Your task to perform on an android device: Show the shopping cart on target. Image 0: 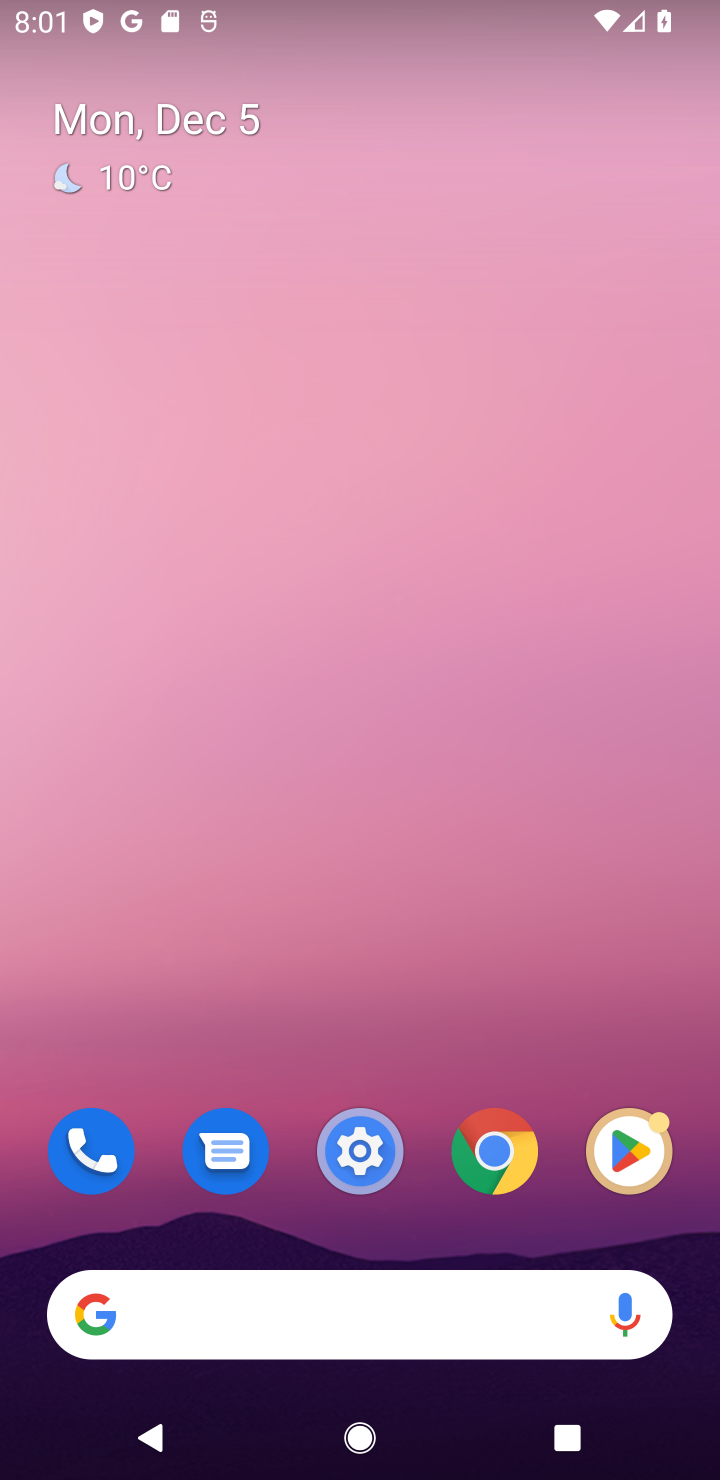
Step 0: click (343, 1292)
Your task to perform on an android device: Show the shopping cart on target. Image 1: 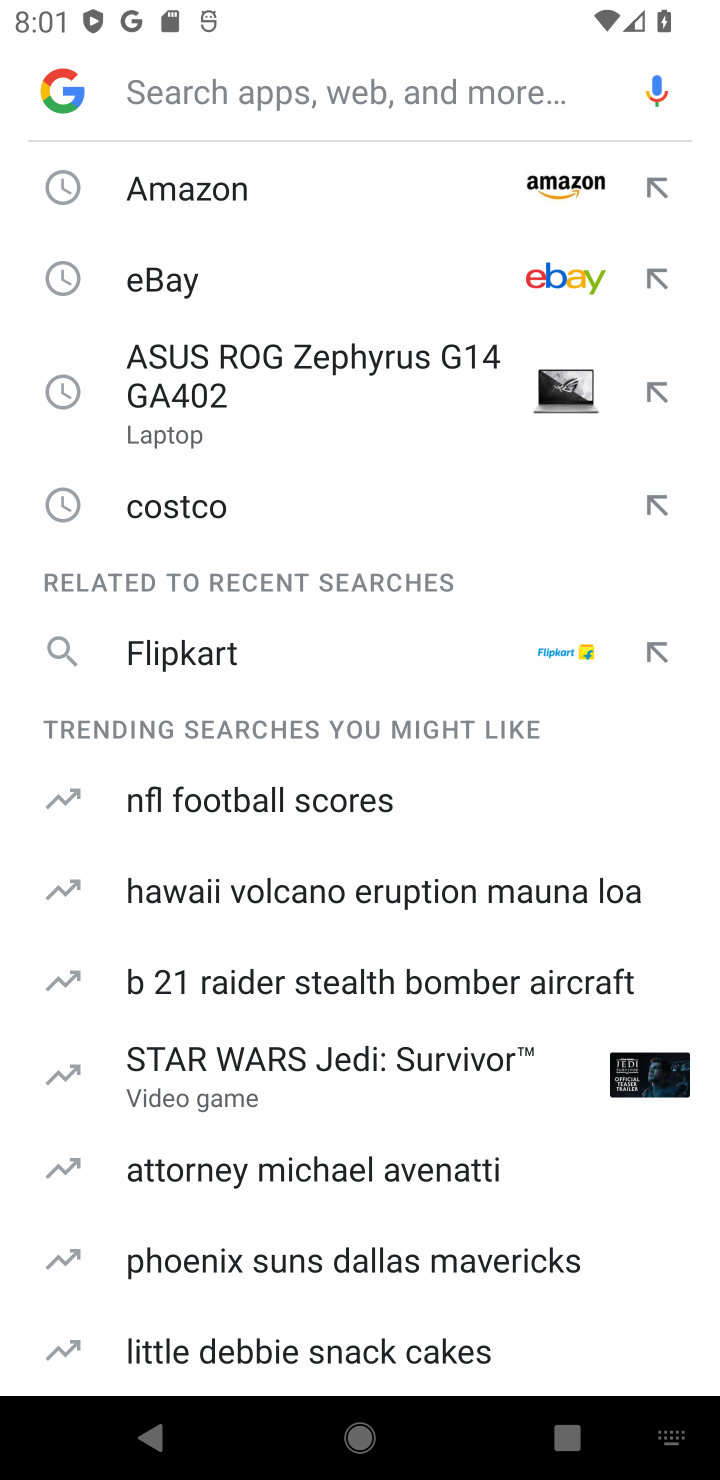
Step 1: type "target"
Your task to perform on an android device: Show the shopping cart on target. Image 2: 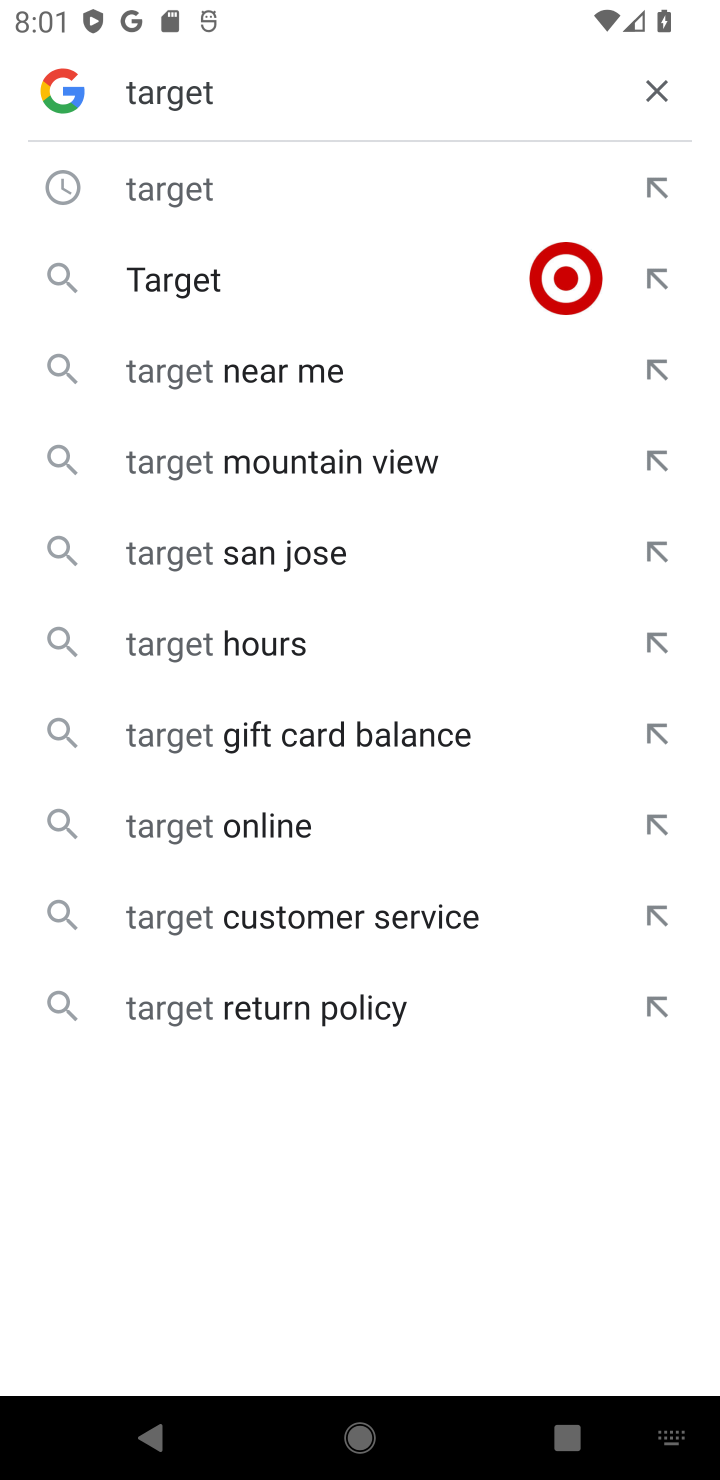
Step 2: click (230, 296)
Your task to perform on an android device: Show the shopping cart on target. Image 3: 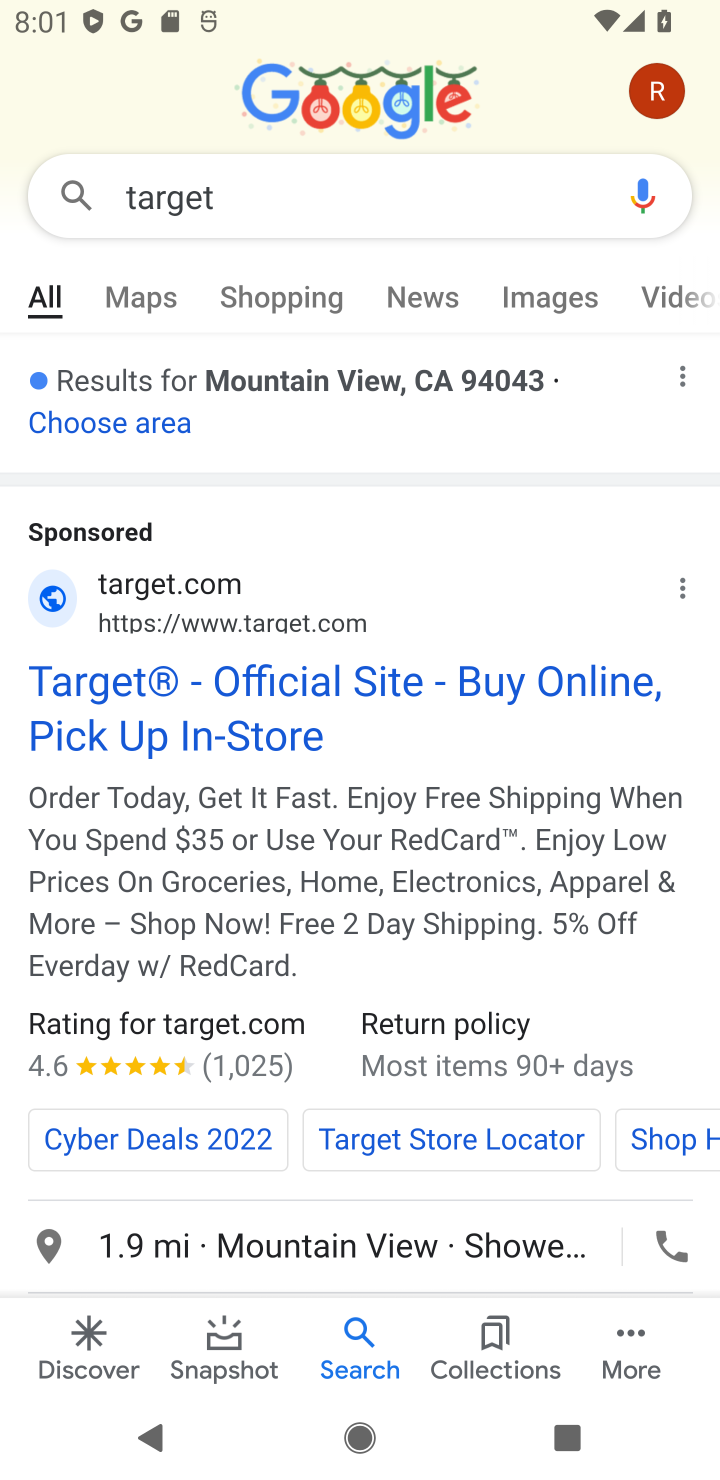
Step 3: click (119, 690)
Your task to perform on an android device: Show the shopping cart on target. Image 4: 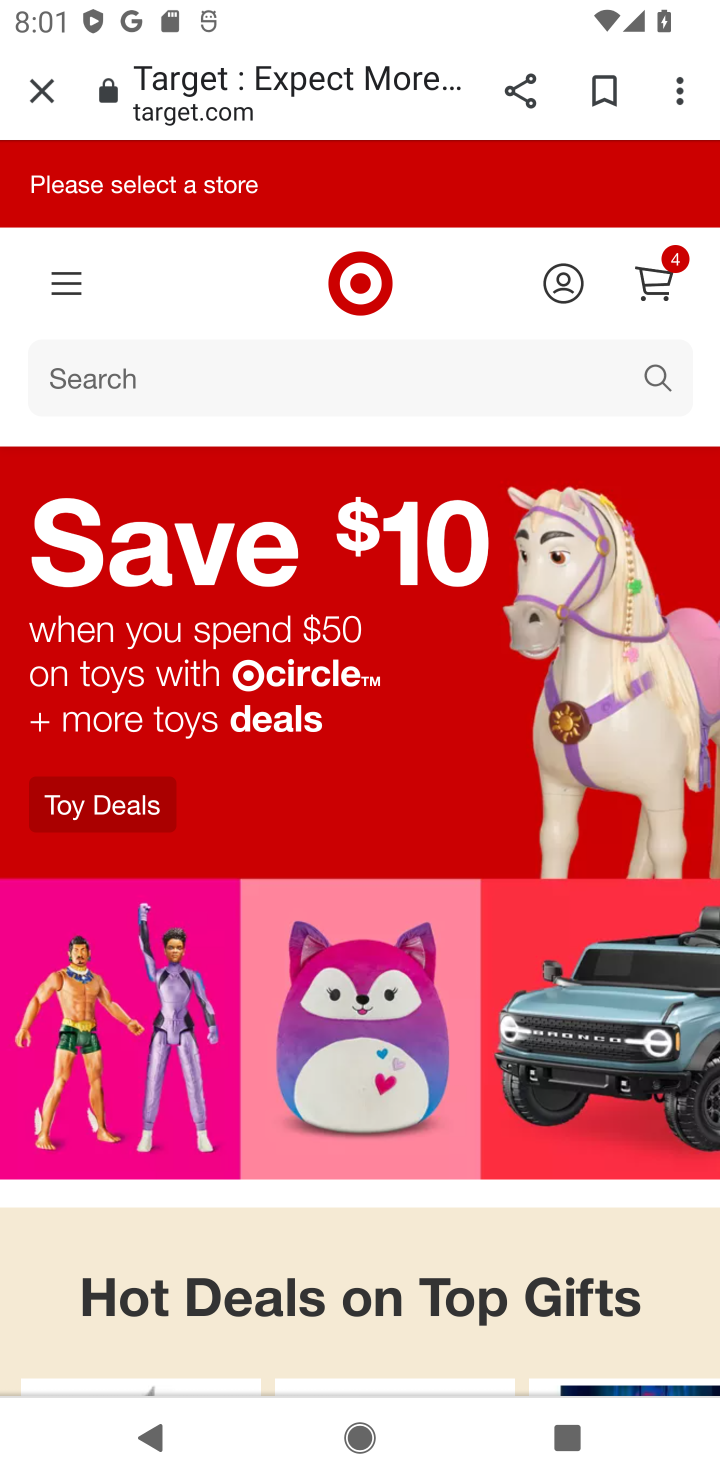
Step 4: click (93, 374)
Your task to perform on an android device: Show the shopping cart on target. Image 5: 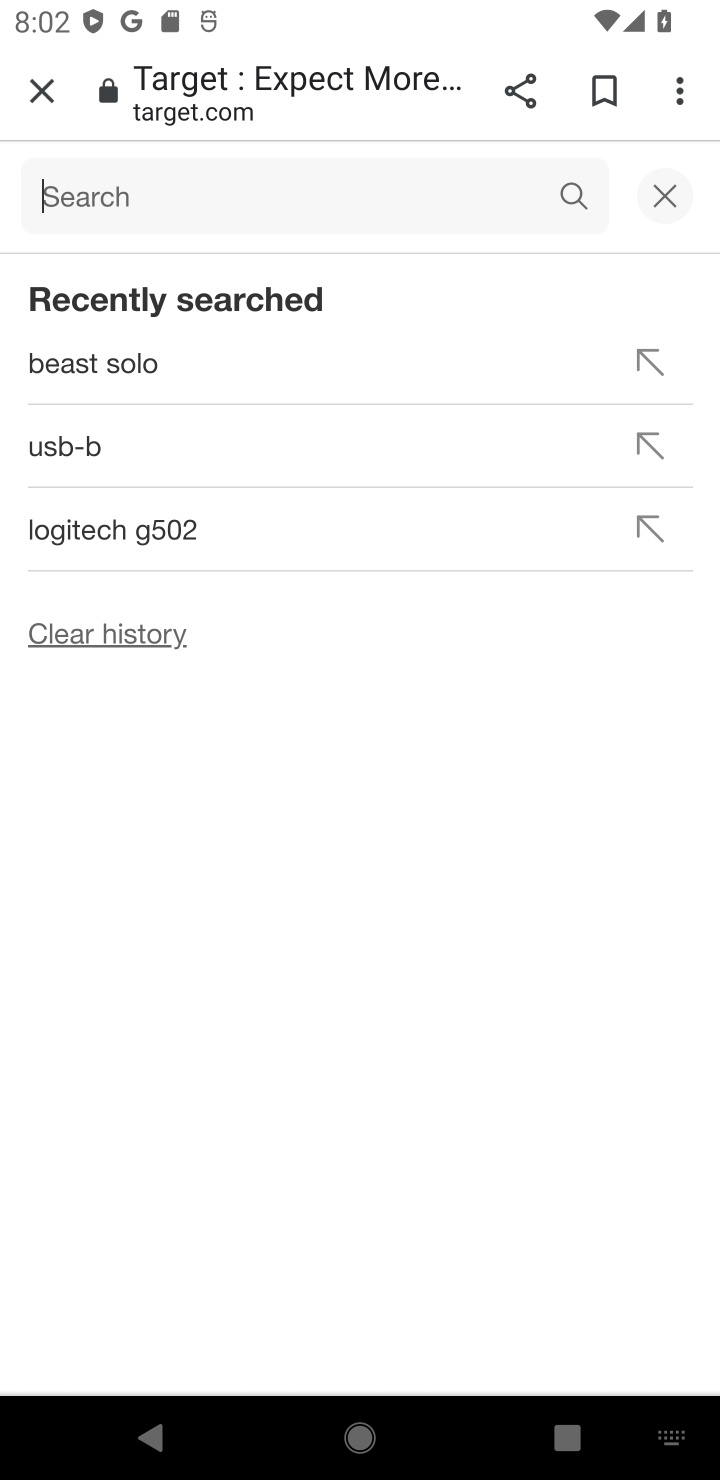
Step 5: click (674, 199)
Your task to perform on an android device: Show the shopping cart on target. Image 6: 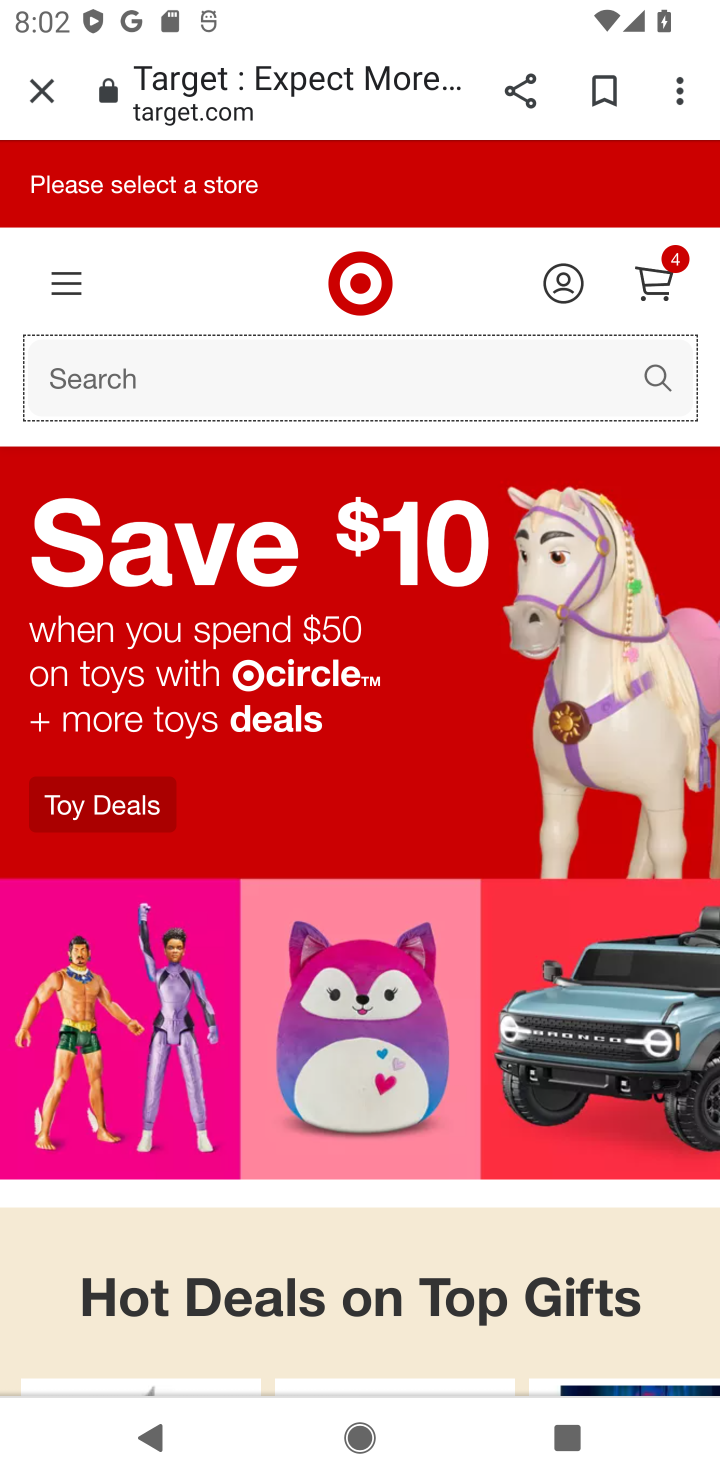
Step 6: click (677, 283)
Your task to perform on an android device: Show the shopping cart on target. Image 7: 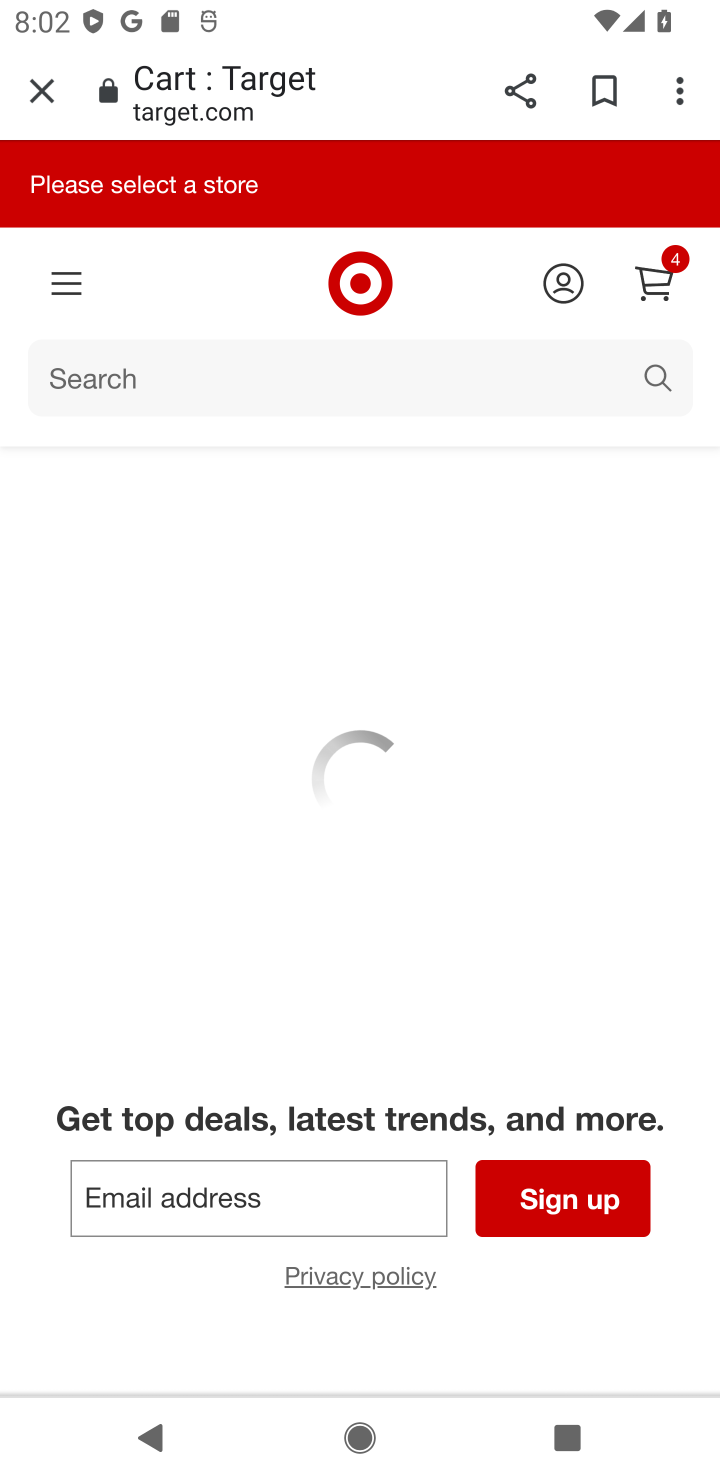
Step 7: click (679, 289)
Your task to perform on an android device: Show the shopping cart on target. Image 8: 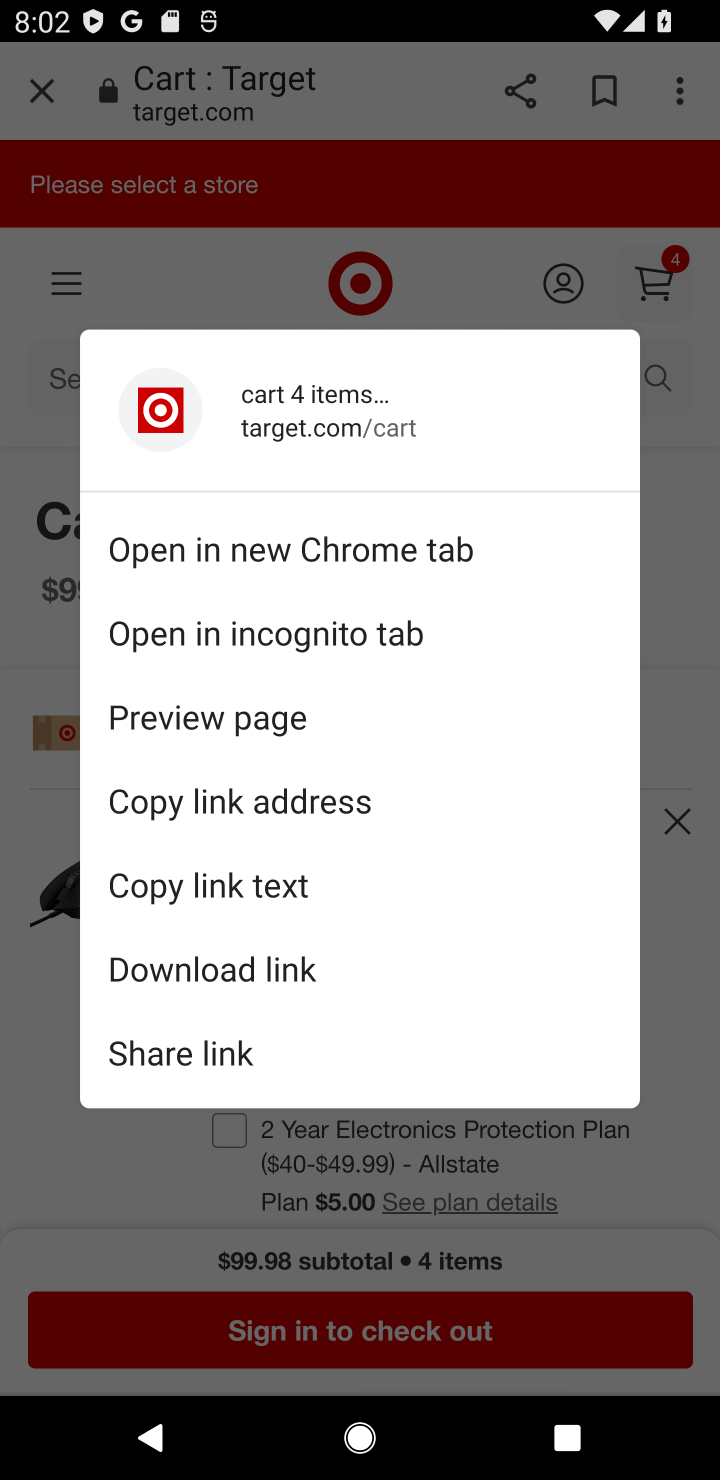
Step 8: click (696, 481)
Your task to perform on an android device: Show the shopping cart on target. Image 9: 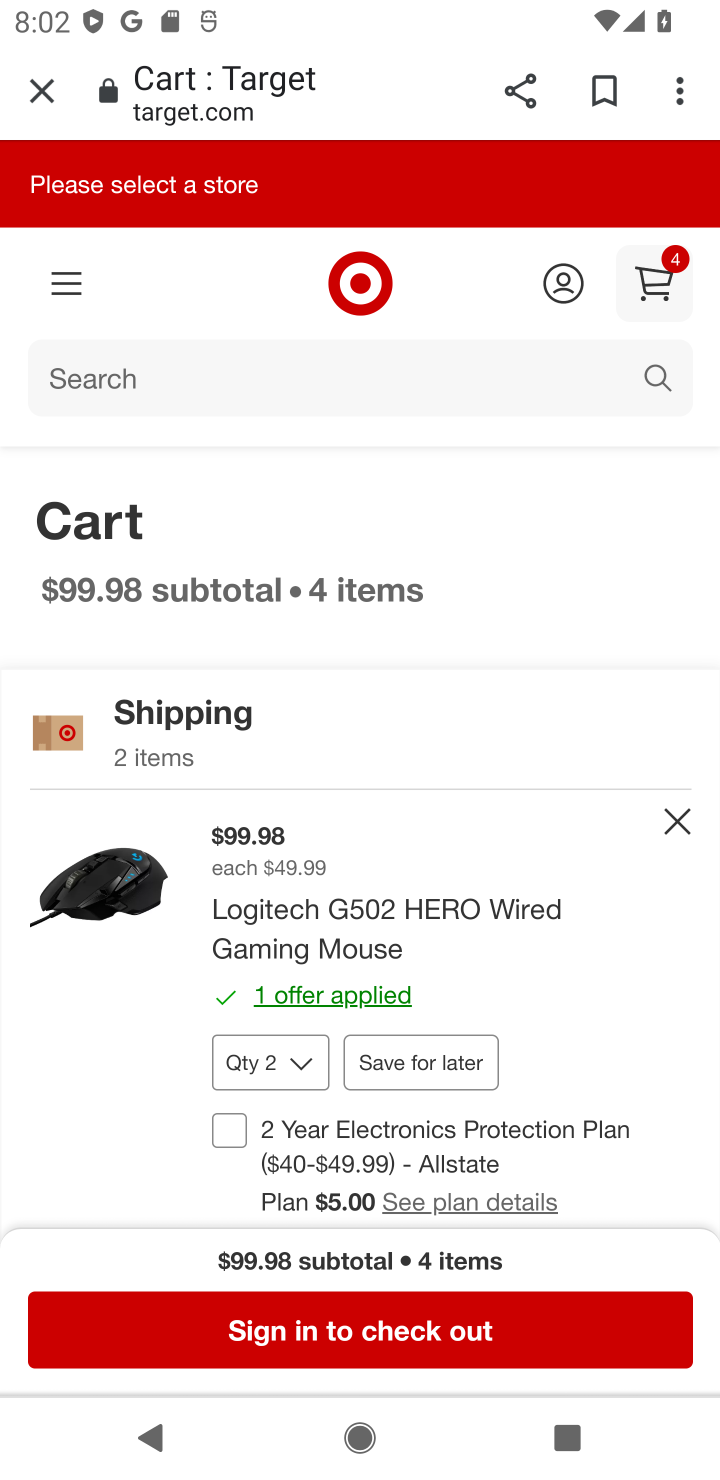
Step 9: task complete